Your task to perform on an android device: empty trash in the gmail app Image 0: 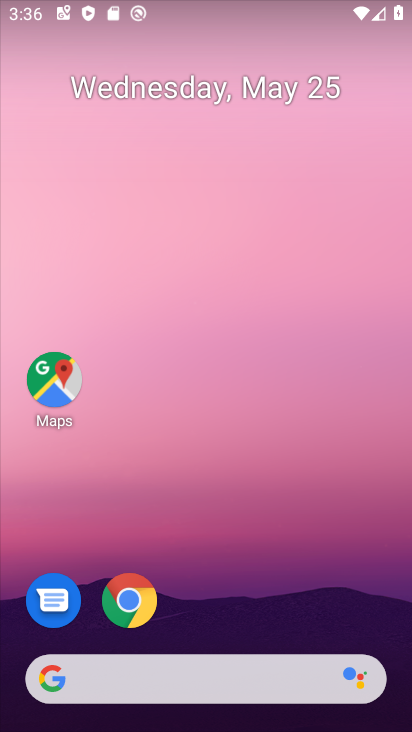
Step 0: drag from (31, 569) to (332, 78)
Your task to perform on an android device: empty trash in the gmail app Image 1: 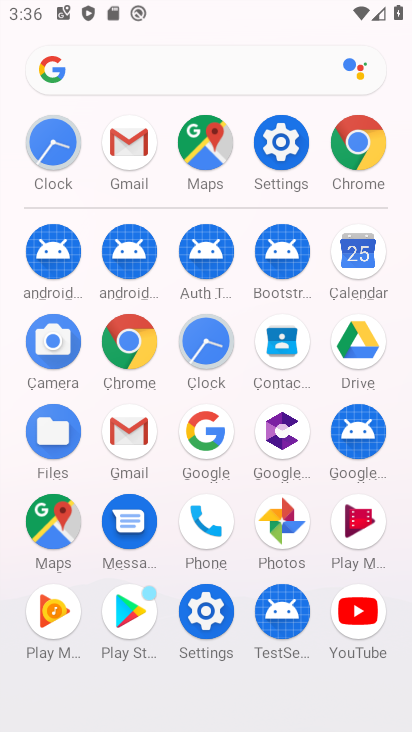
Step 1: click (121, 139)
Your task to perform on an android device: empty trash in the gmail app Image 2: 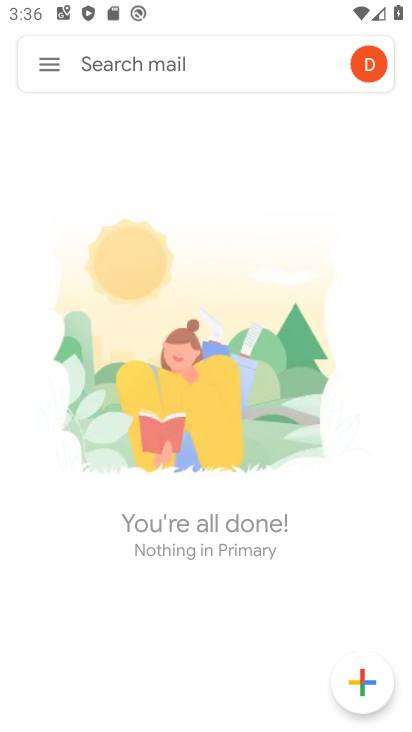
Step 2: click (37, 71)
Your task to perform on an android device: empty trash in the gmail app Image 3: 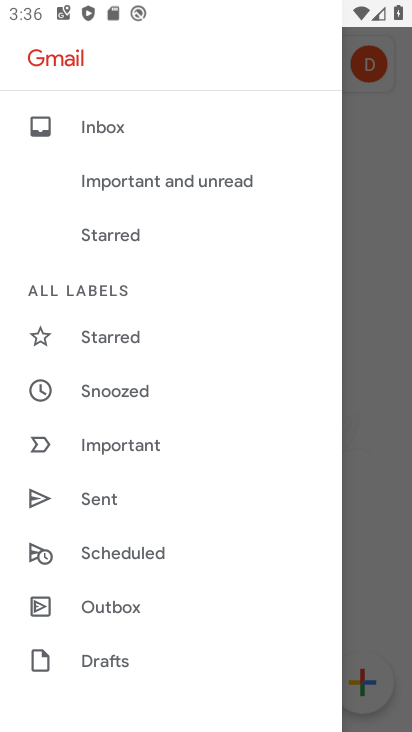
Step 3: drag from (92, 666) to (187, 229)
Your task to perform on an android device: empty trash in the gmail app Image 4: 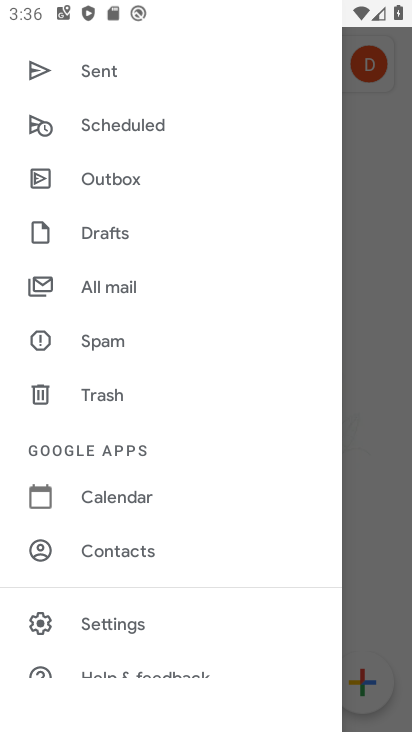
Step 4: click (101, 390)
Your task to perform on an android device: empty trash in the gmail app Image 5: 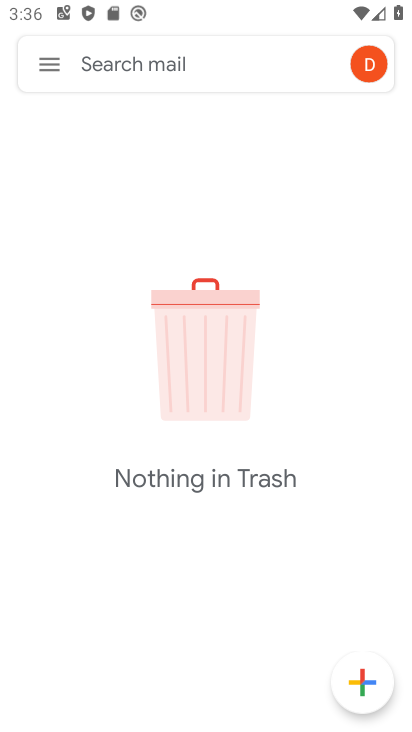
Step 5: task complete